Your task to perform on an android device: Open sound settings Image 0: 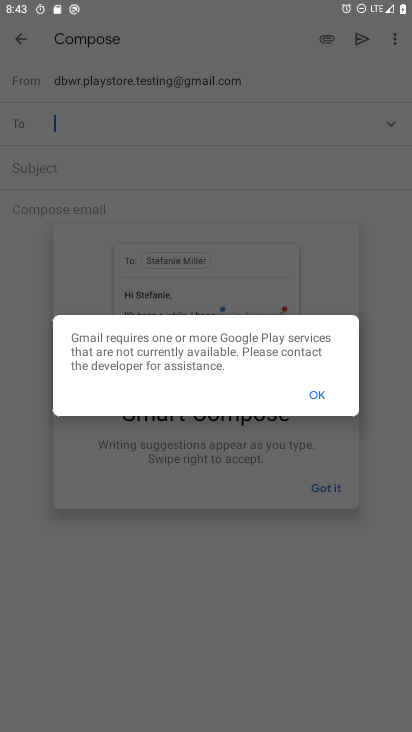
Step 0: press home button
Your task to perform on an android device: Open sound settings Image 1: 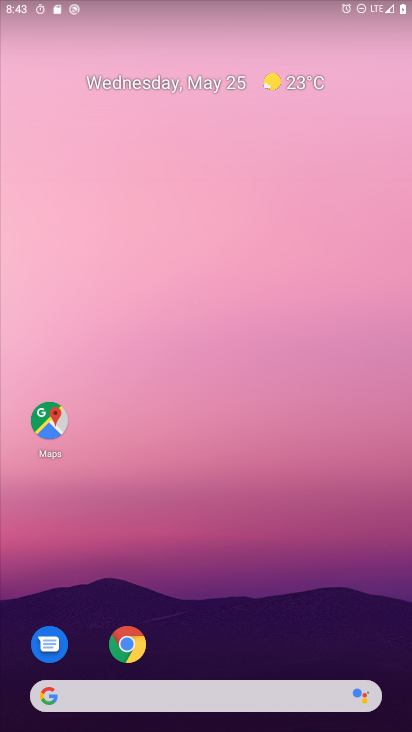
Step 1: drag from (398, 647) to (245, 62)
Your task to perform on an android device: Open sound settings Image 2: 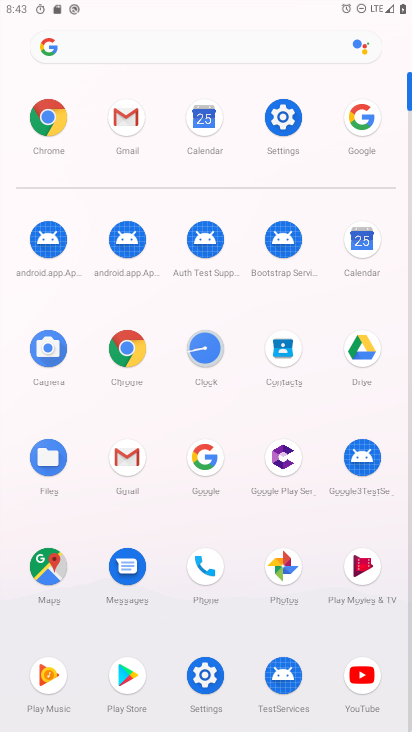
Step 2: click (203, 686)
Your task to perform on an android device: Open sound settings Image 3: 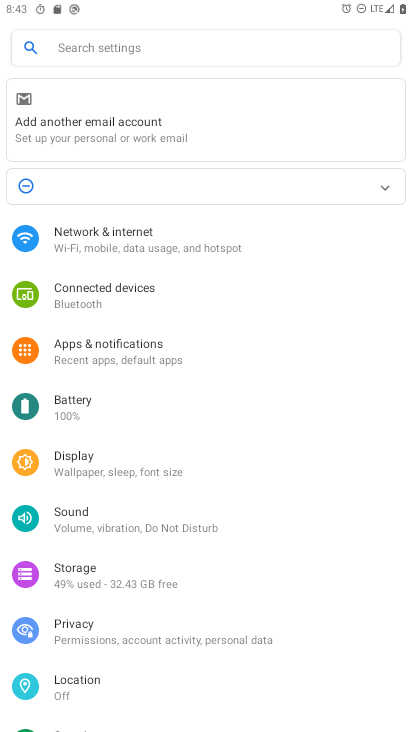
Step 3: click (108, 533)
Your task to perform on an android device: Open sound settings Image 4: 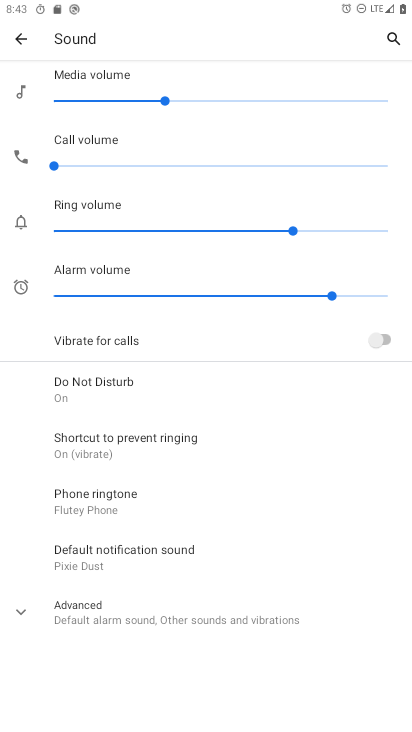
Step 4: task complete